Your task to perform on an android device: change timer sound Image 0: 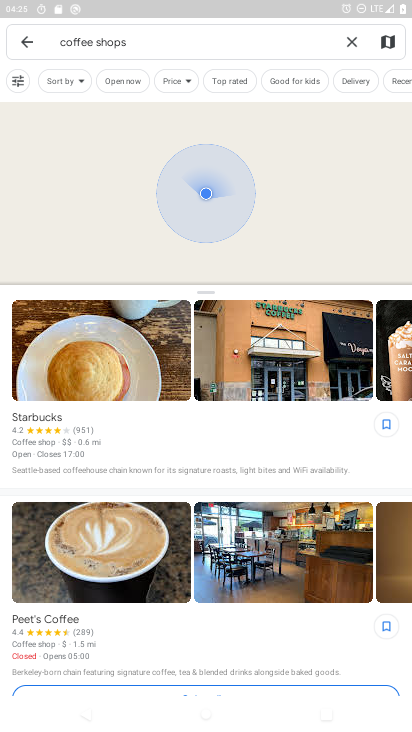
Step 0: press home button
Your task to perform on an android device: change timer sound Image 1: 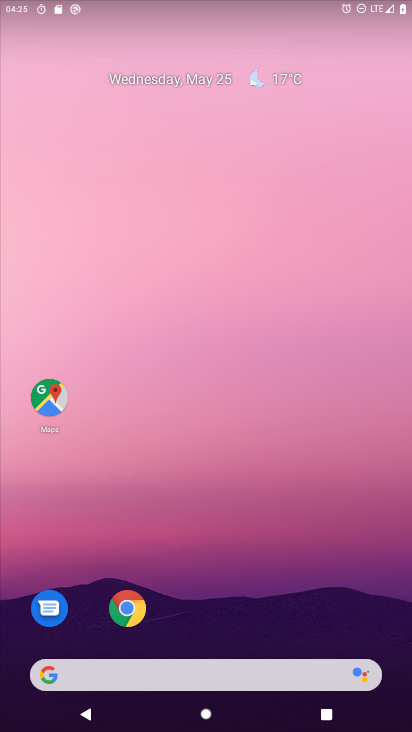
Step 1: drag from (234, 509) to (181, 117)
Your task to perform on an android device: change timer sound Image 2: 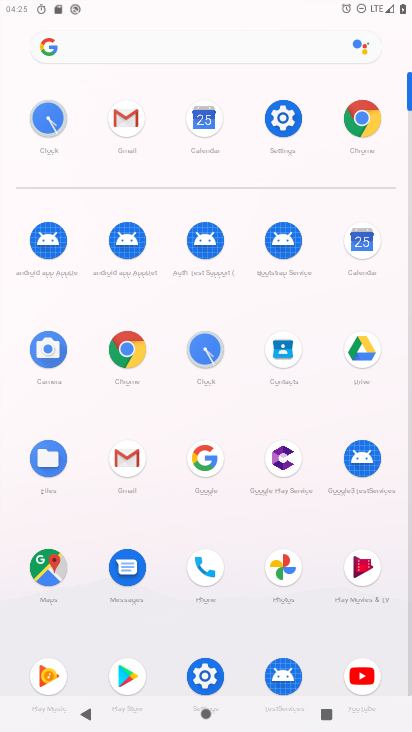
Step 2: click (286, 135)
Your task to perform on an android device: change timer sound Image 3: 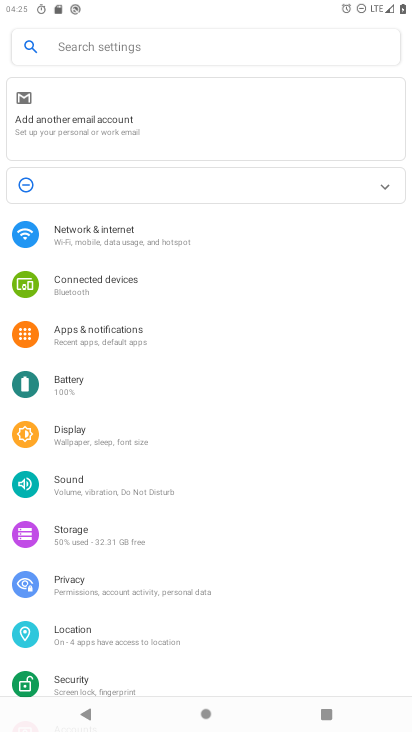
Step 3: click (98, 489)
Your task to perform on an android device: change timer sound Image 4: 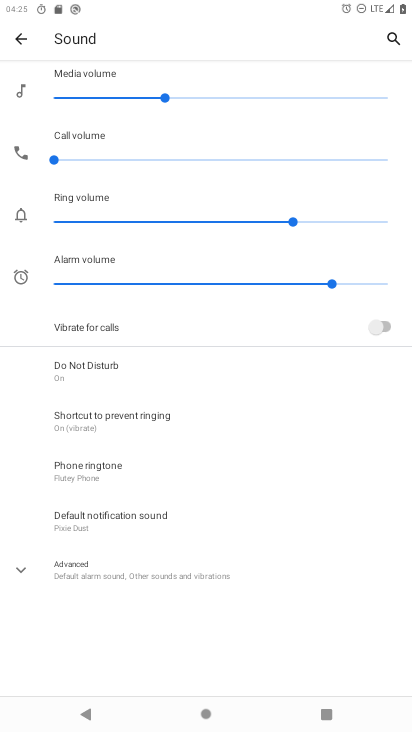
Step 4: task complete